Your task to perform on an android device: toggle location history Image 0: 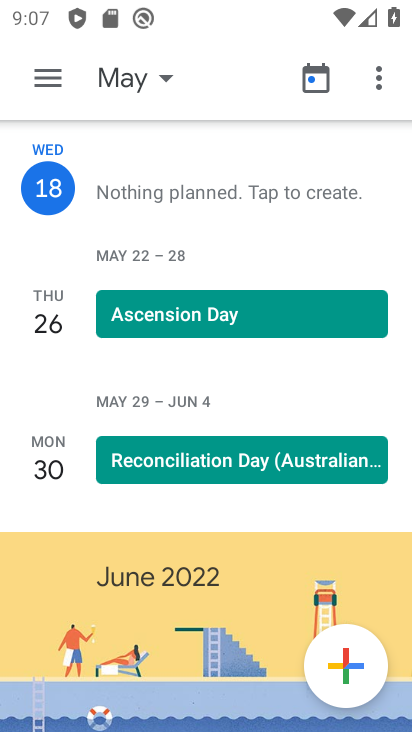
Step 0: press back button
Your task to perform on an android device: toggle location history Image 1: 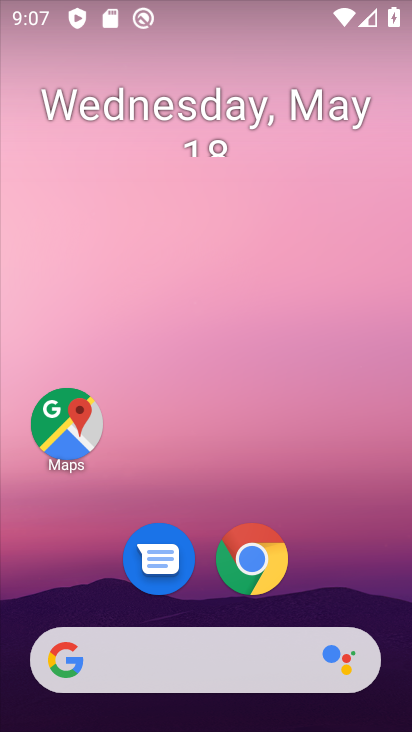
Step 1: drag from (367, 556) to (241, 9)
Your task to perform on an android device: toggle location history Image 2: 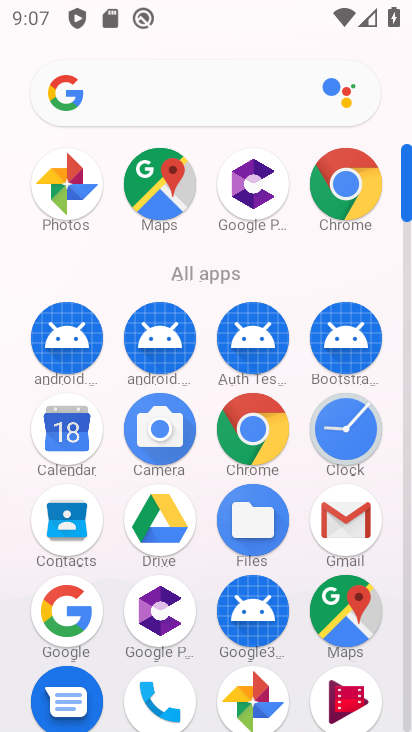
Step 2: drag from (17, 558) to (21, 286)
Your task to perform on an android device: toggle location history Image 3: 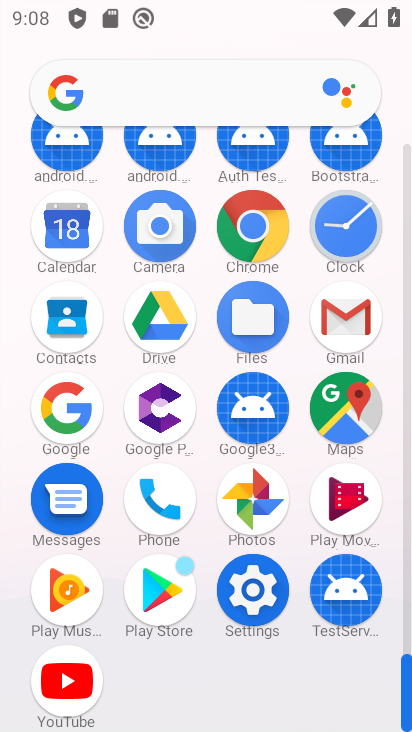
Step 3: click (250, 588)
Your task to perform on an android device: toggle location history Image 4: 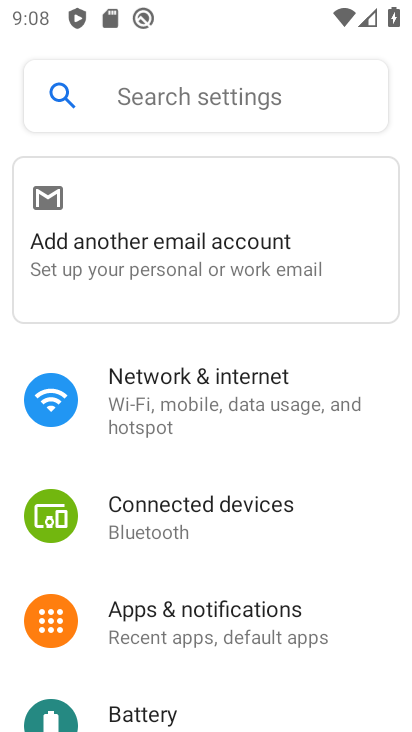
Step 4: drag from (249, 629) to (281, 244)
Your task to perform on an android device: toggle location history Image 5: 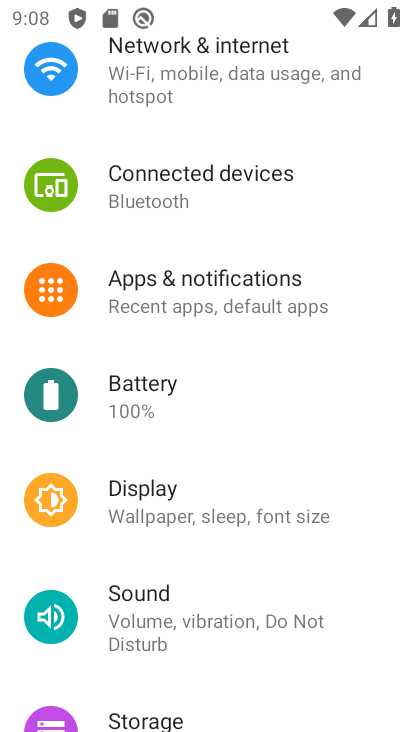
Step 5: drag from (234, 523) to (259, 176)
Your task to perform on an android device: toggle location history Image 6: 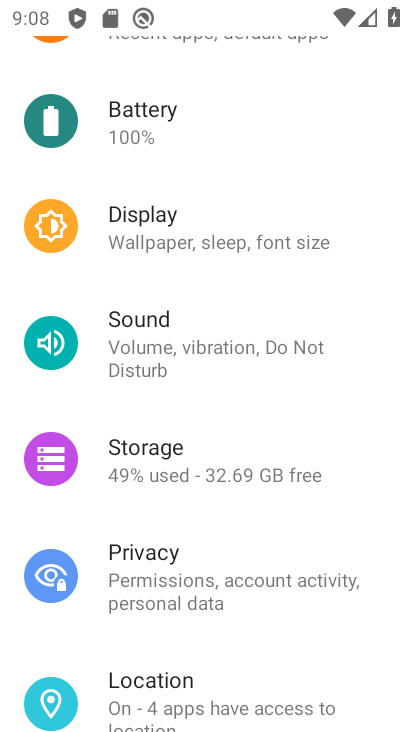
Step 6: click (154, 695)
Your task to perform on an android device: toggle location history Image 7: 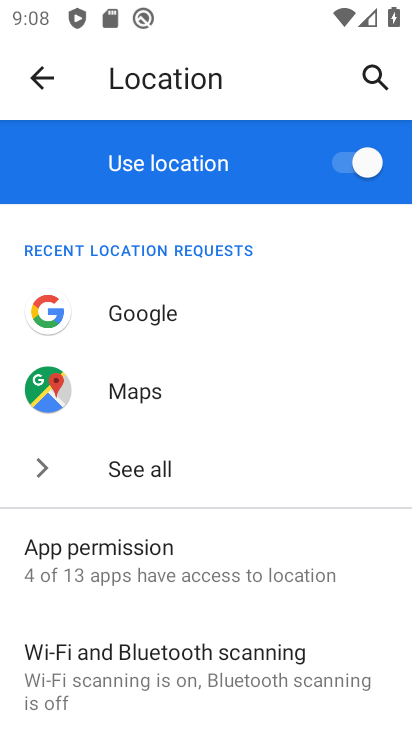
Step 7: drag from (258, 609) to (250, 216)
Your task to perform on an android device: toggle location history Image 8: 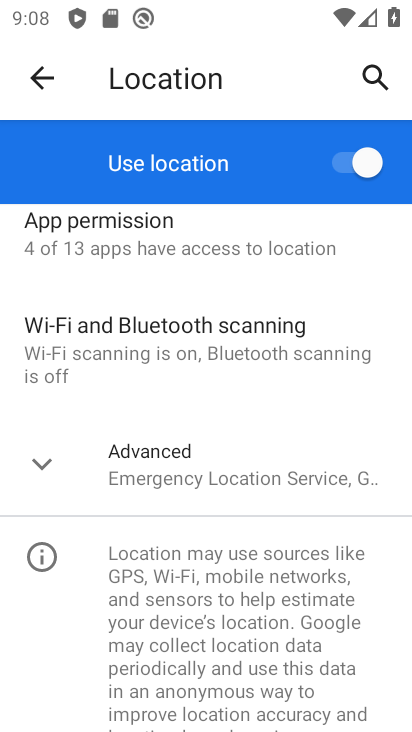
Step 8: click (101, 467)
Your task to perform on an android device: toggle location history Image 9: 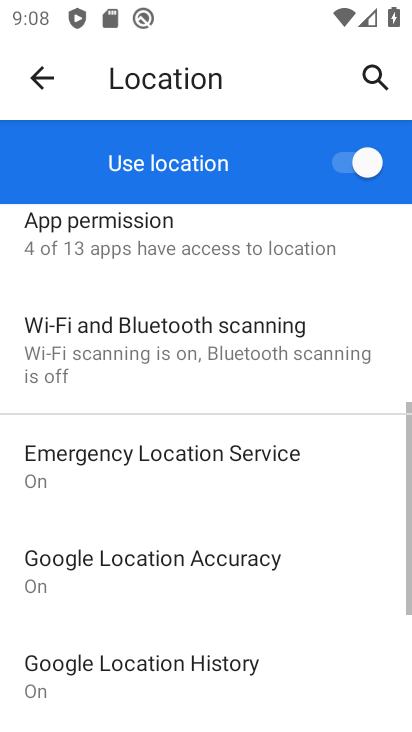
Step 9: drag from (217, 674) to (208, 327)
Your task to perform on an android device: toggle location history Image 10: 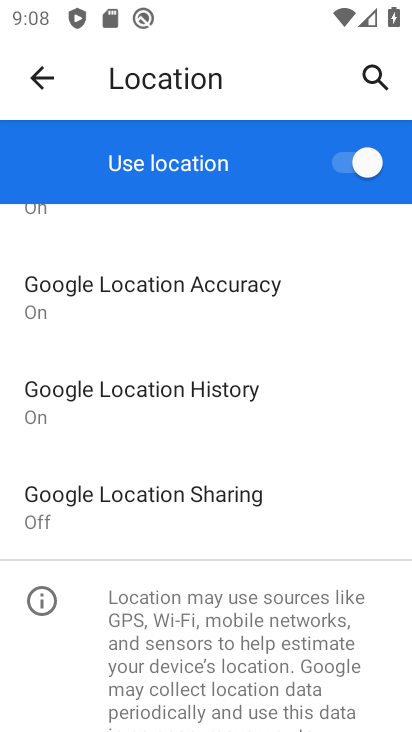
Step 10: click (163, 390)
Your task to perform on an android device: toggle location history Image 11: 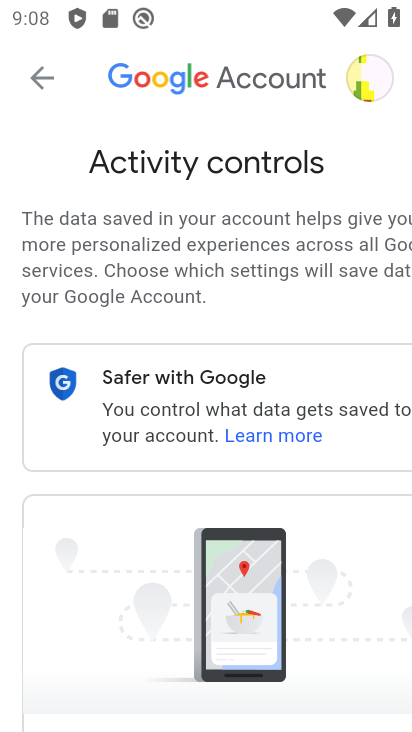
Step 11: drag from (122, 513) to (115, 134)
Your task to perform on an android device: toggle location history Image 12: 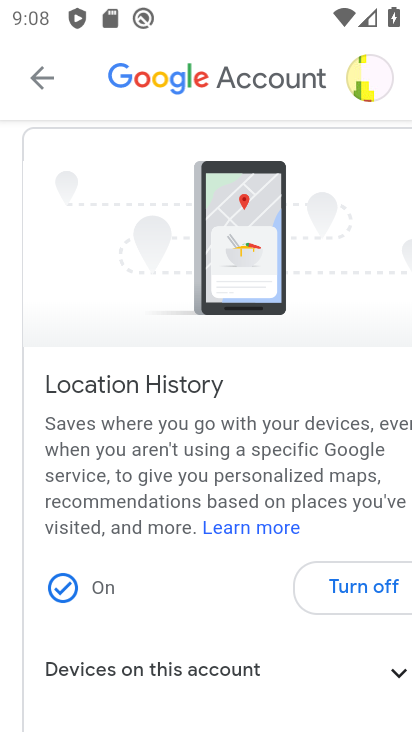
Step 12: drag from (145, 508) to (113, 173)
Your task to perform on an android device: toggle location history Image 13: 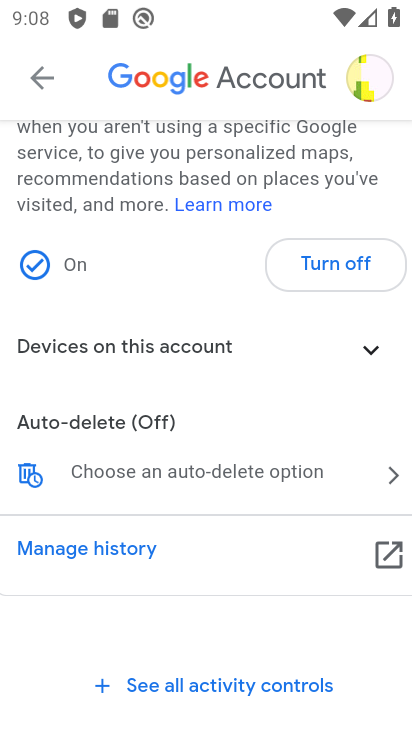
Step 13: click (332, 263)
Your task to perform on an android device: toggle location history Image 14: 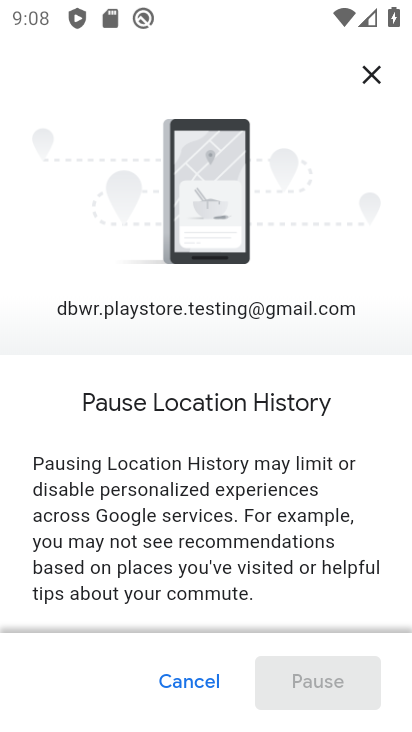
Step 14: drag from (218, 522) to (199, 107)
Your task to perform on an android device: toggle location history Image 15: 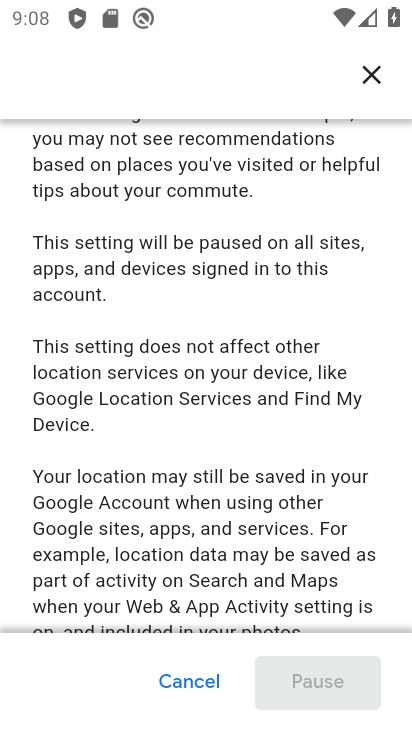
Step 15: drag from (227, 530) to (222, 90)
Your task to perform on an android device: toggle location history Image 16: 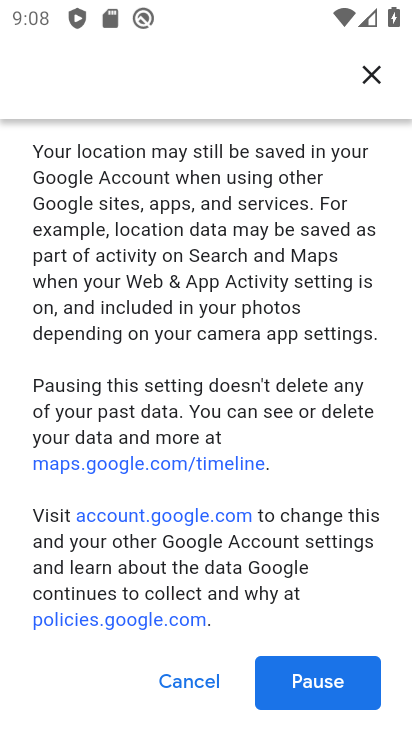
Step 16: click (310, 680)
Your task to perform on an android device: toggle location history Image 17: 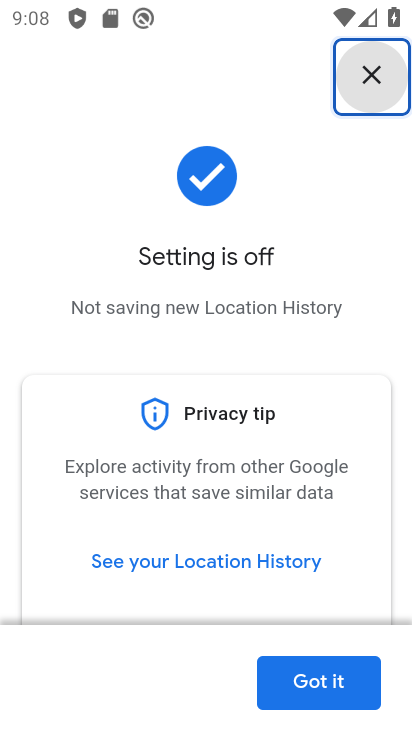
Step 17: task complete